Your task to perform on an android device: Open Google Maps Image 0: 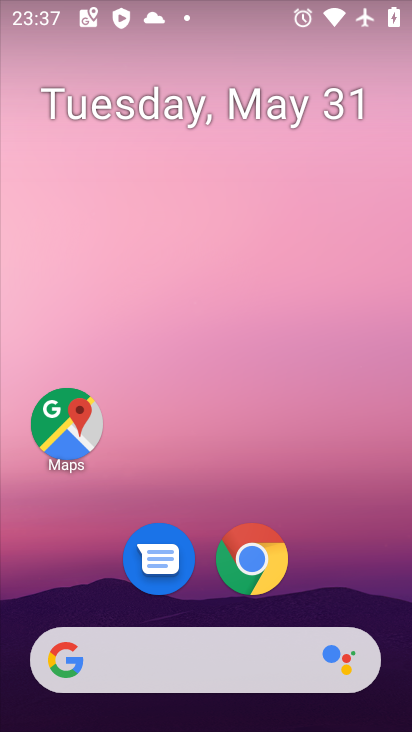
Step 0: drag from (321, 569) to (296, 72)
Your task to perform on an android device: Open Google Maps Image 1: 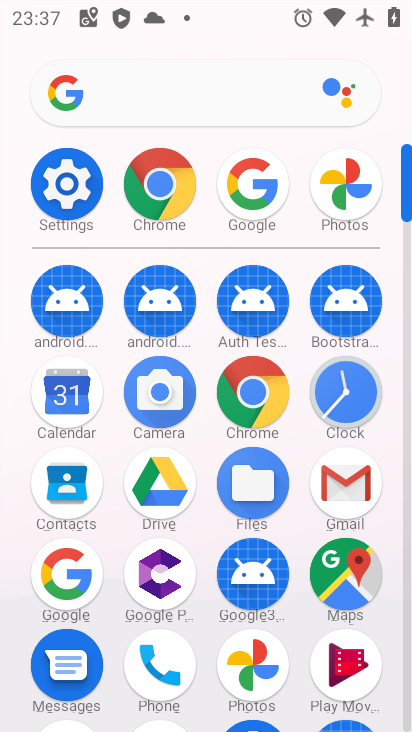
Step 1: click (351, 578)
Your task to perform on an android device: Open Google Maps Image 2: 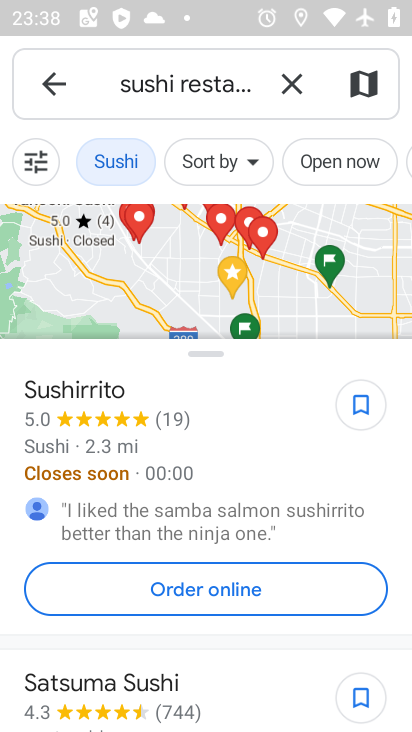
Step 2: task complete